Your task to perform on an android device: toggle notifications settings in the gmail app Image 0: 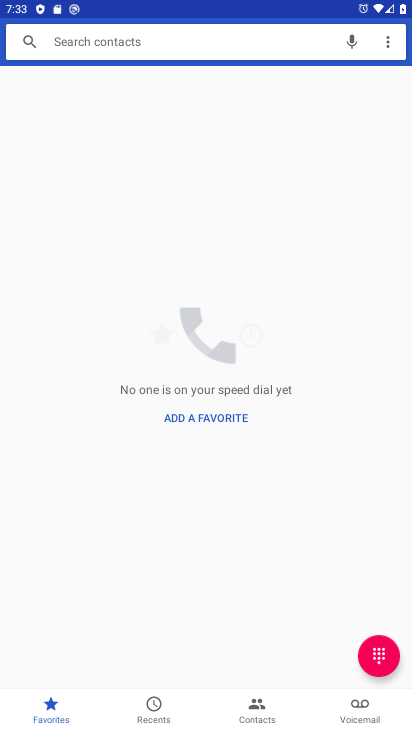
Step 0: press home button
Your task to perform on an android device: toggle notifications settings in the gmail app Image 1: 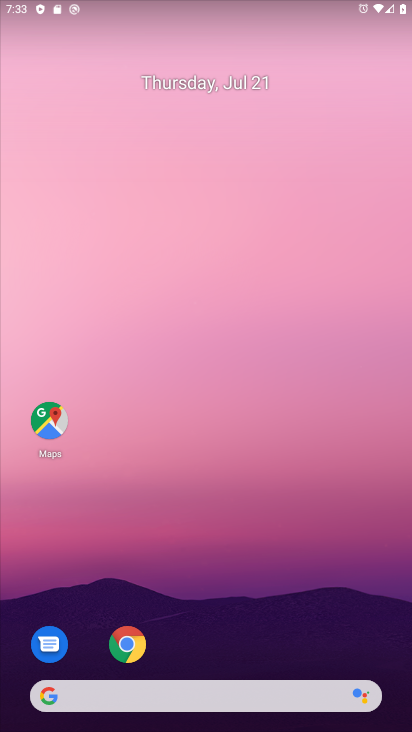
Step 1: click (128, 655)
Your task to perform on an android device: toggle notifications settings in the gmail app Image 2: 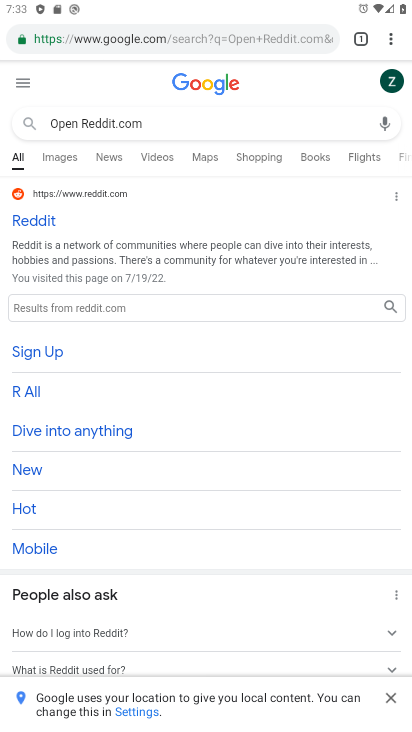
Step 2: click (395, 34)
Your task to perform on an android device: toggle notifications settings in the gmail app Image 3: 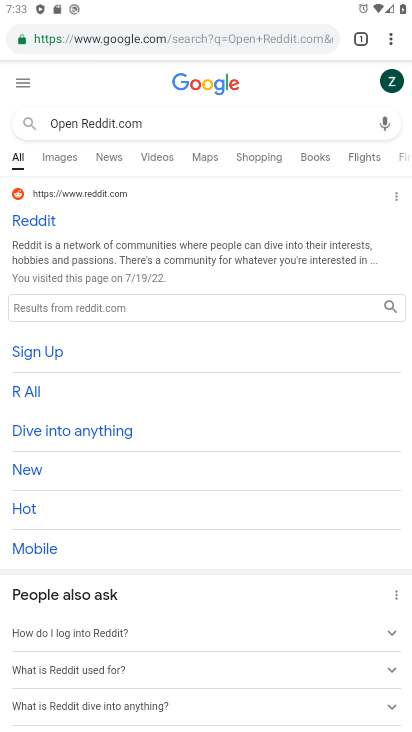
Step 3: click (395, 34)
Your task to perform on an android device: toggle notifications settings in the gmail app Image 4: 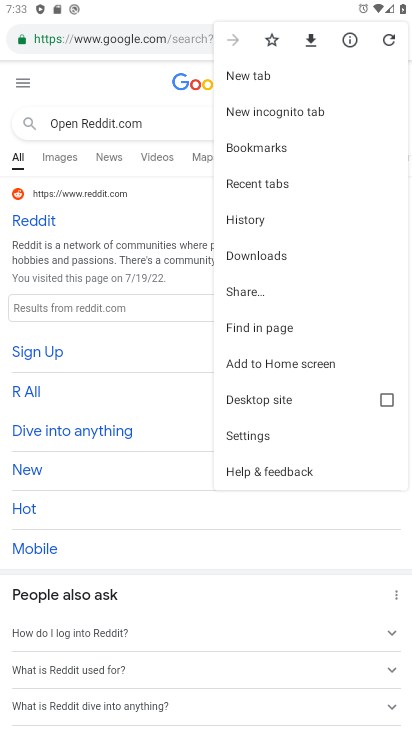
Step 4: click (254, 69)
Your task to perform on an android device: toggle notifications settings in the gmail app Image 5: 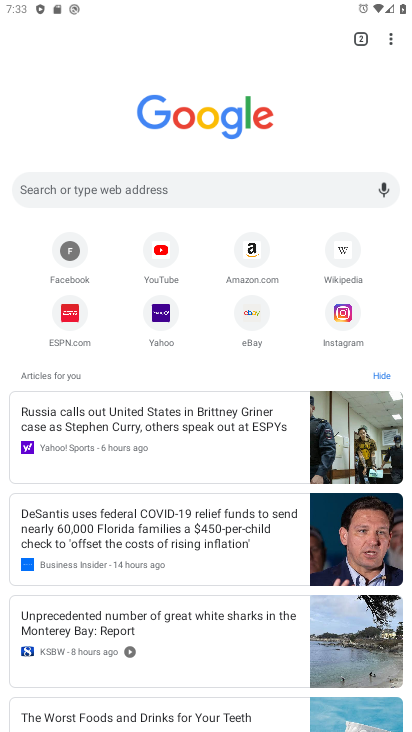
Step 5: click (62, 309)
Your task to perform on an android device: toggle notifications settings in the gmail app Image 6: 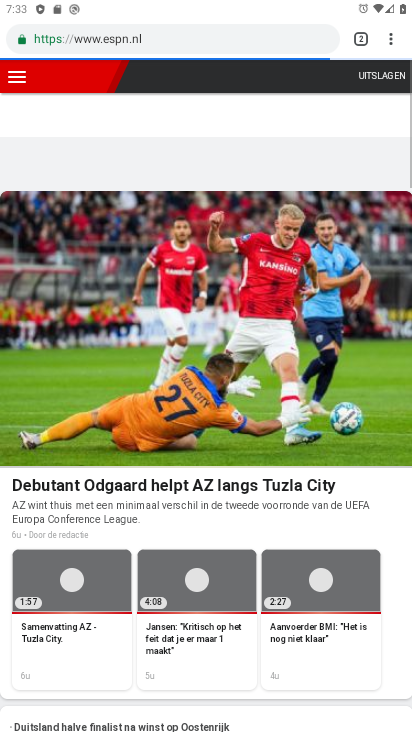
Step 6: press home button
Your task to perform on an android device: toggle notifications settings in the gmail app Image 7: 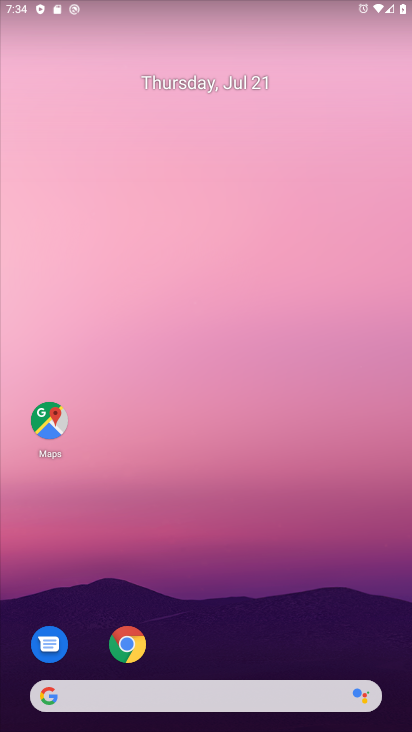
Step 7: drag from (228, 664) to (236, 192)
Your task to perform on an android device: toggle notifications settings in the gmail app Image 8: 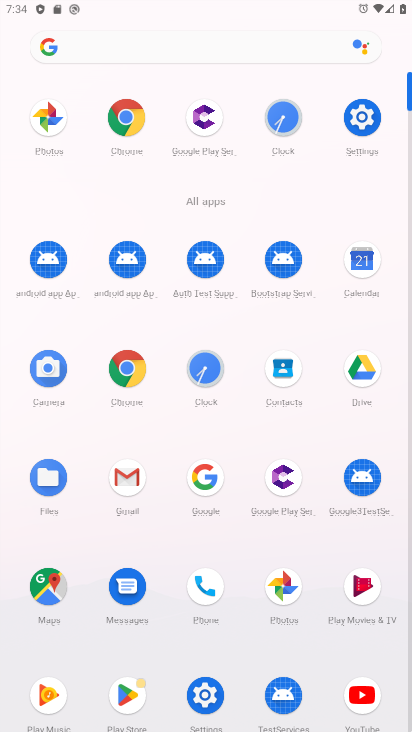
Step 8: click (127, 479)
Your task to perform on an android device: toggle notifications settings in the gmail app Image 9: 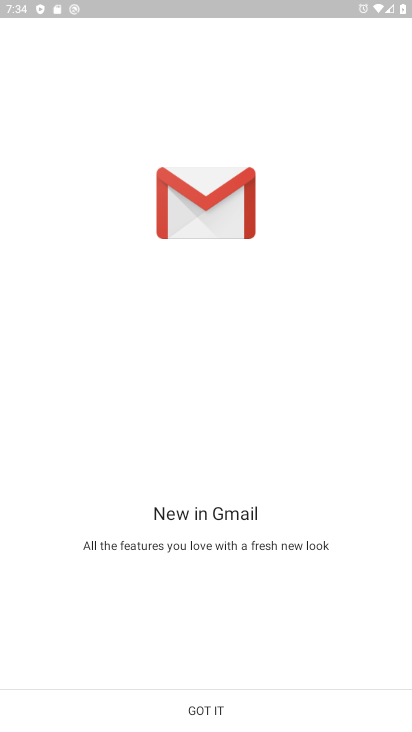
Step 9: click (200, 715)
Your task to perform on an android device: toggle notifications settings in the gmail app Image 10: 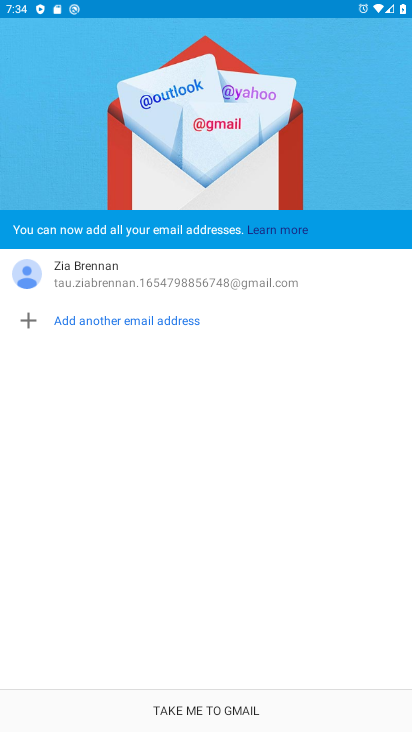
Step 10: click (210, 700)
Your task to perform on an android device: toggle notifications settings in the gmail app Image 11: 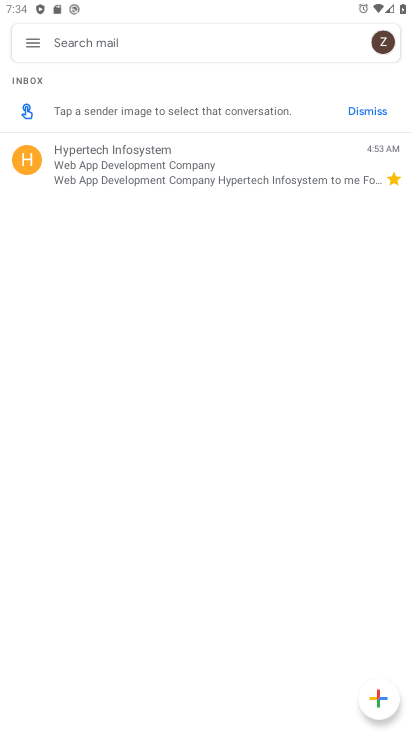
Step 11: click (31, 49)
Your task to perform on an android device: toggle notifications settings in the gmail app Image 12: 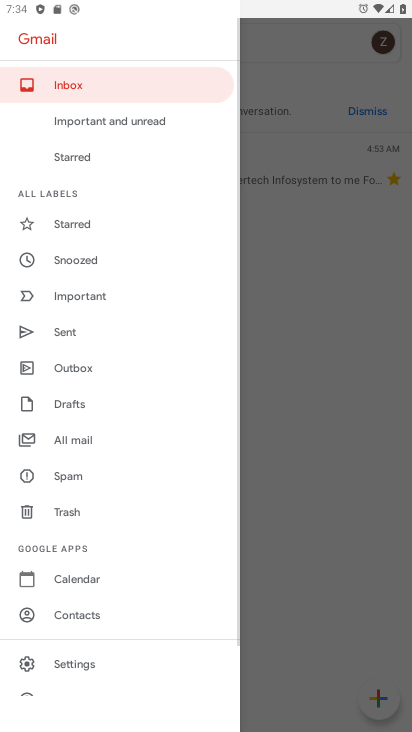
Step 12: click (84, 663)
Your task to perform on an android device: toggle notifications settings in the gmail app Image 13: 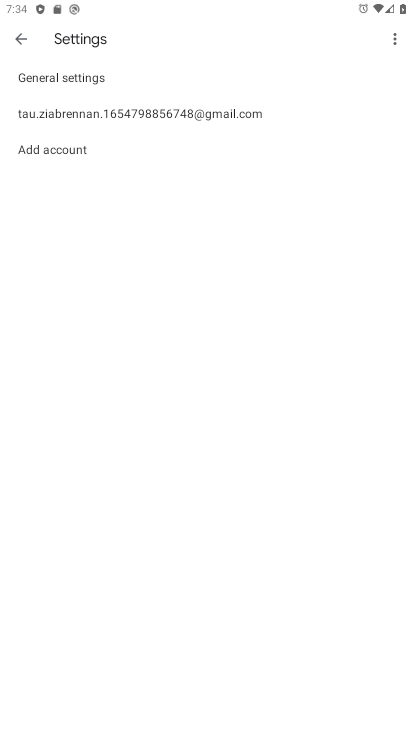
Step 13: click (80, 110)
Your task to perform on an android device: toggle notifications settings in the gmail app Image 14: 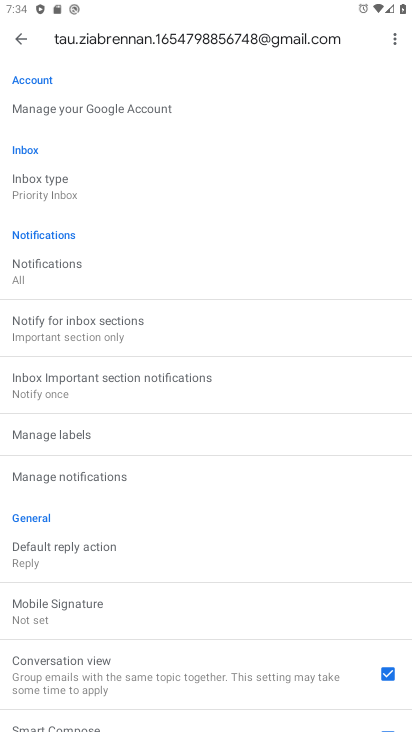
Step 14: click (71, 263)
Your task to perform on an android device: toggle notifications settings in the gmail app Image 15: 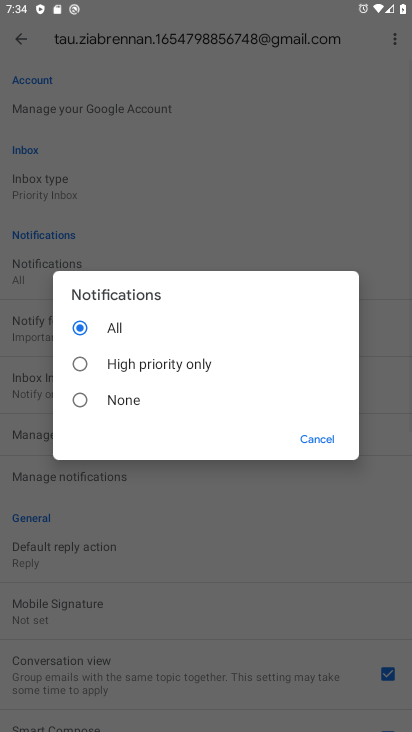
Step 15: click (116, 399)
Your task to perform on an android device: toggle notifications settings in the gmail app Image 16: 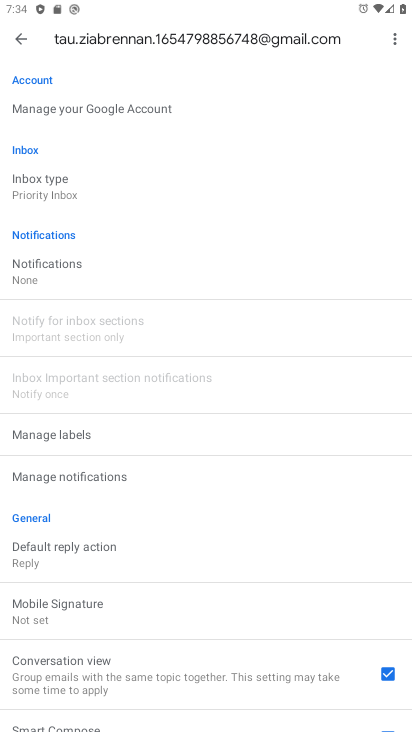
Step 16: task complete